Your task to perform on an android device: turn on javascript in the chrome app Image 0: 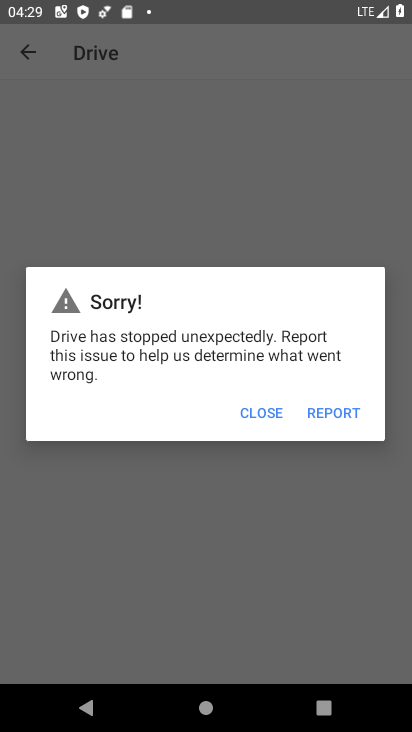
Step 0: press home button
Your task to perform on an android device: turn on javascript in the chrome app Image 1: 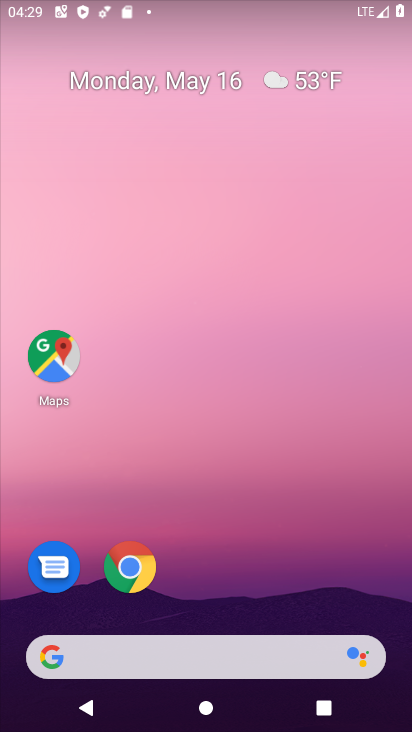
Step 1: drag from (301, 658) to (297, 8)
Your task to perform on an android device: turn on javascript in the chrome app Image 2: 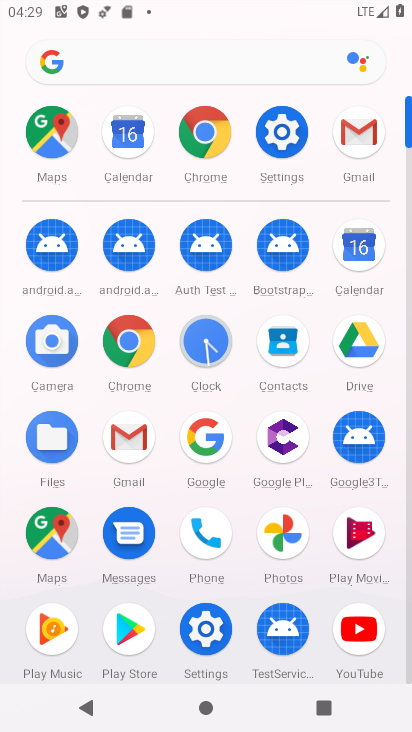
Step 2: click (129, 343)
Your task to perform on an android device: turn on javascript in the chrome app Image 3: 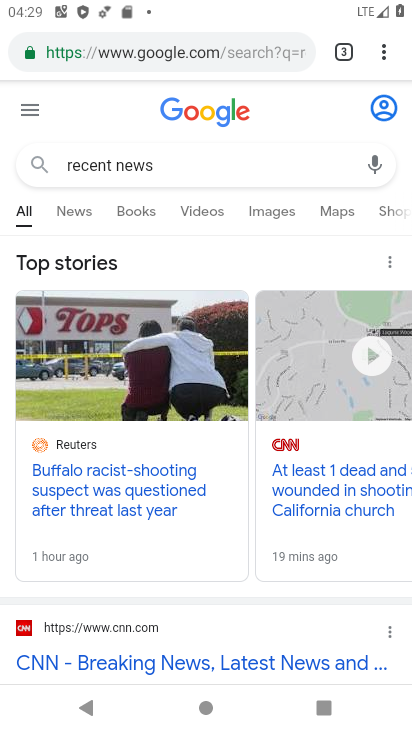
Step 3: click (378, 43)
Your task to perform on an android device: turn on javascript in the chrome app Image 4: 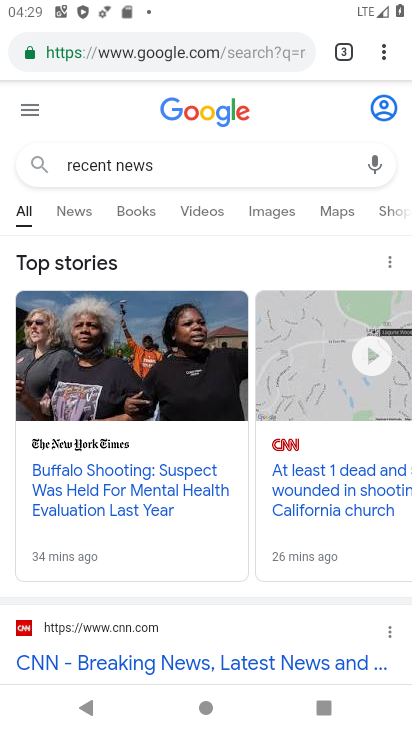
Step 4: drag from (389, 50) to (198, 587)
Your task to perform on an android device: turn on javascript in the chrome app Image 5: 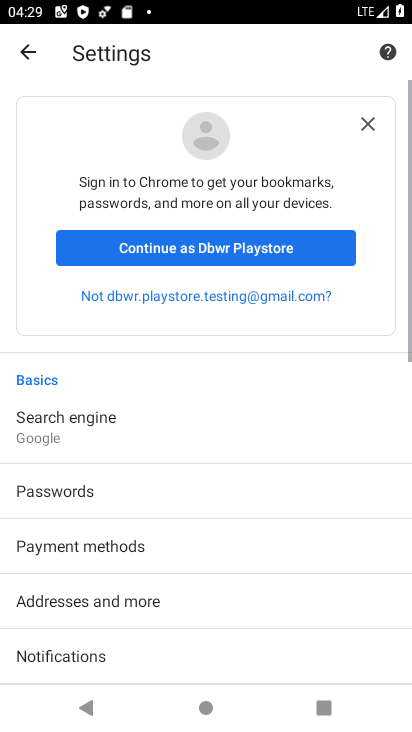
Step 5: drag from (198, 587) to (159, 95)
Your task to perform on an android device: turn on javascript in the chrome app Image 6: 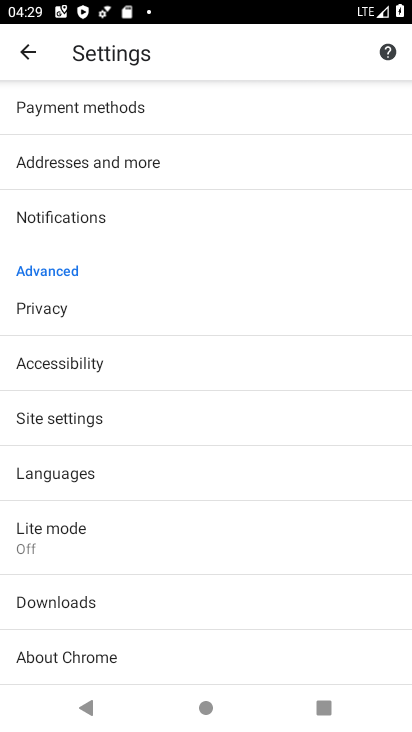
Step 6: click (75, 417)
Your task to perform on an android device: turn on javascript in the chrome app Image 7: 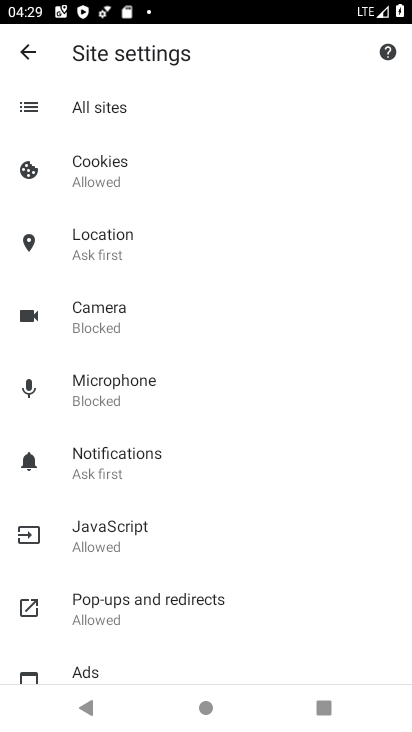
Step 7: click (118, 538)
Your task to perform on an android device: turn on javascript in the chrome app Image 8: 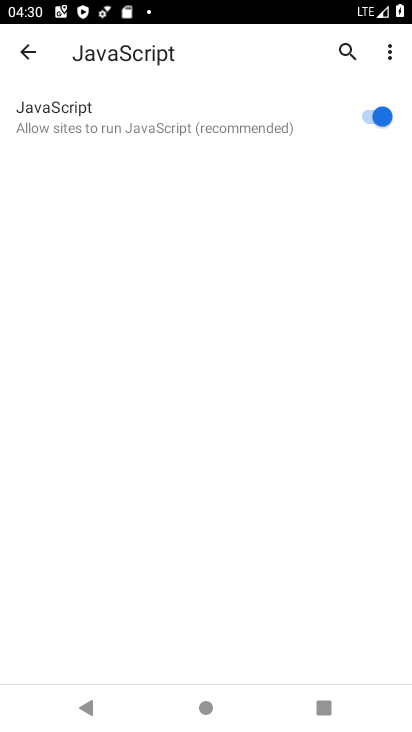
Step 8: task complete